Your task to perform on an android device: change the clock style Image 0: 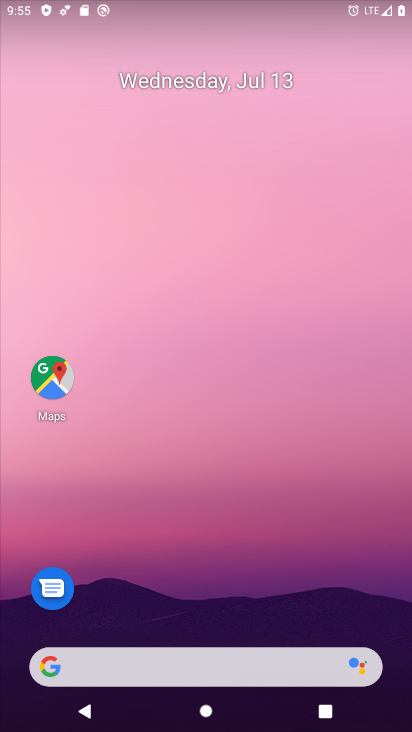
Step 0: drag from (251, 672) to (141, 3)
Your task to perform on an android device: change the clock style Image 1: 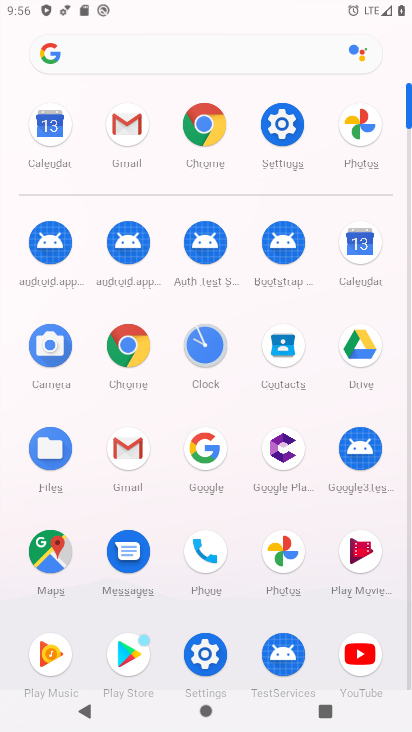
Step 1: click (210, 345)
Your task to perform on an android device: change the clock style Image 2: 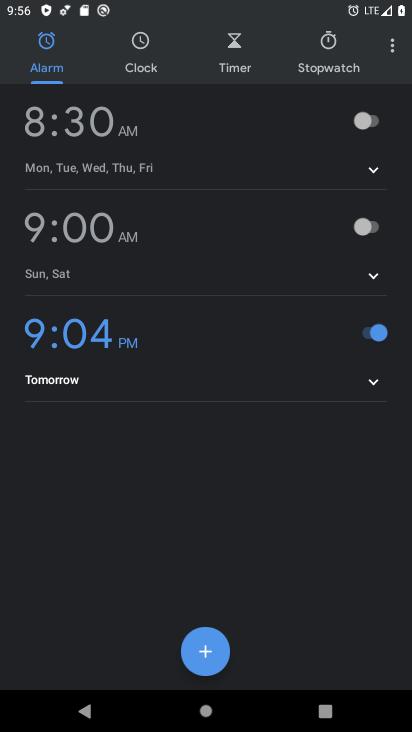
Step 2: click (397, 44)
Your task to perform on an android device: change the clock style Image 3: 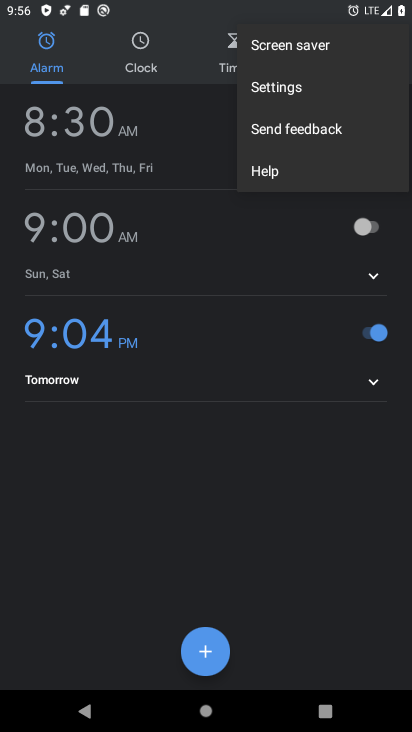
Step 3: click (335, 87)
Your task to perform on an android device: change the clock style Image 4: 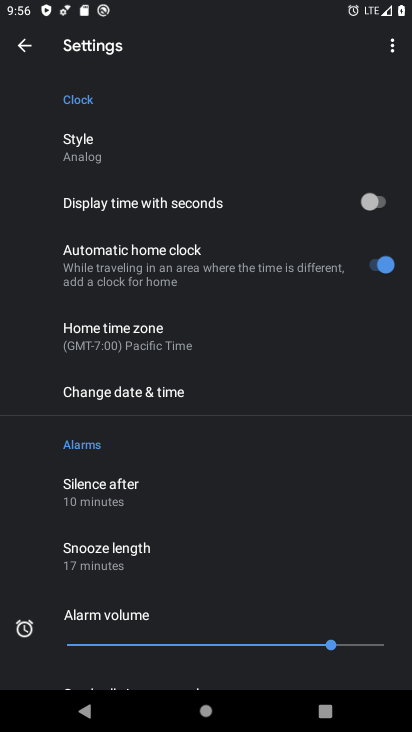
Step 4: click (105, 144)
Your task to perform on an android device: change the clock style Image 5: 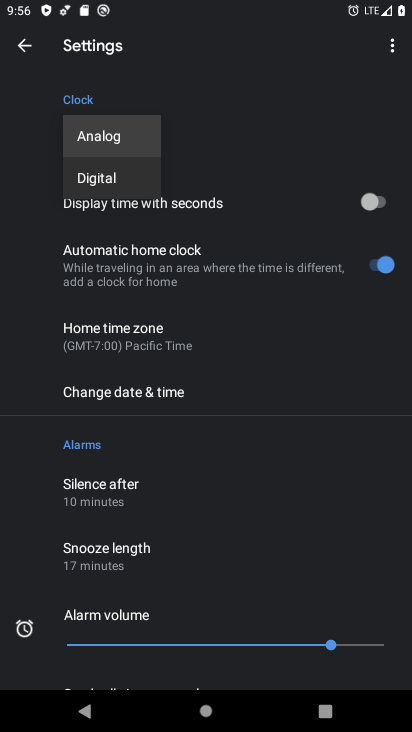
Step 5: click (115, 182)
Your task to perform on an android device: change the clock style Image 6: 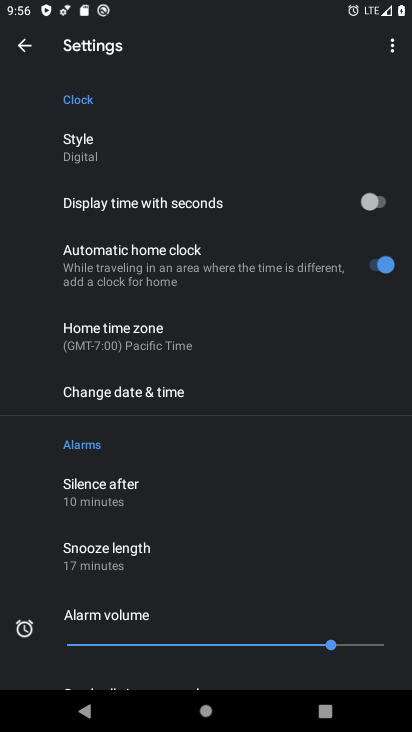
Step 6: task complete